Your task to perform on an android device: open app "Cash App" (install if not already installed) Image 0: 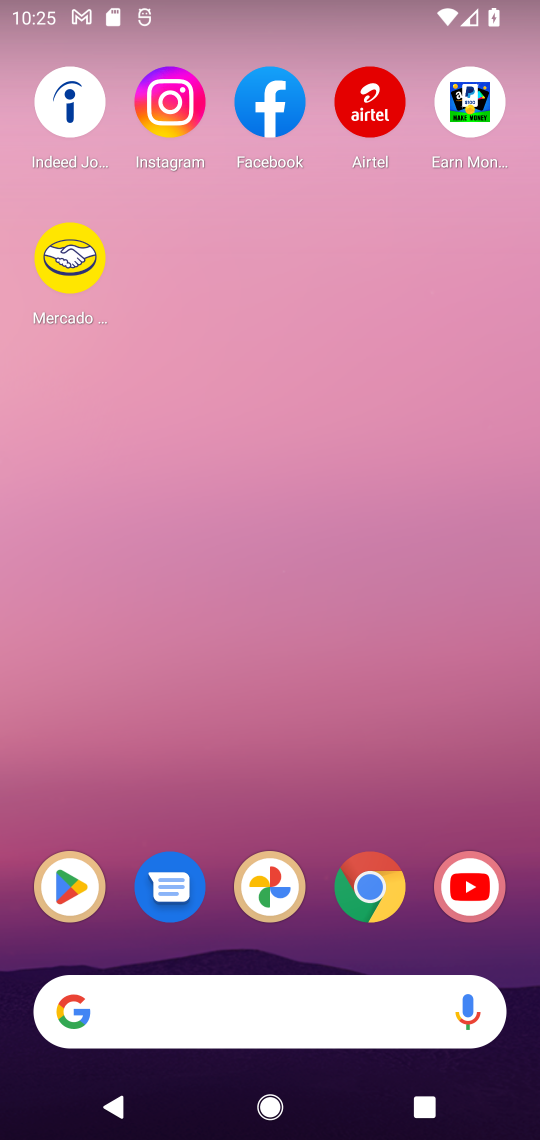
Step 0: drag from (322, 954) to (233, 149)
Your task to perform on an android device: open app "Cash App" (install if not already installed) Image 1: 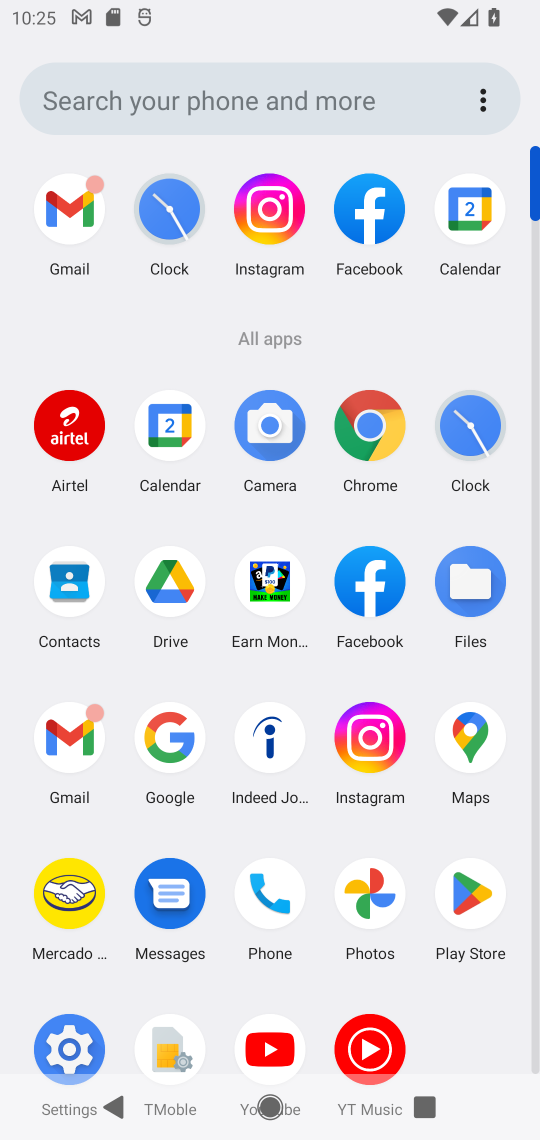
Step 1: click (477, 887)
Your task to perform on an android device: open app "Cash App" (install if not already installed) Image 2: 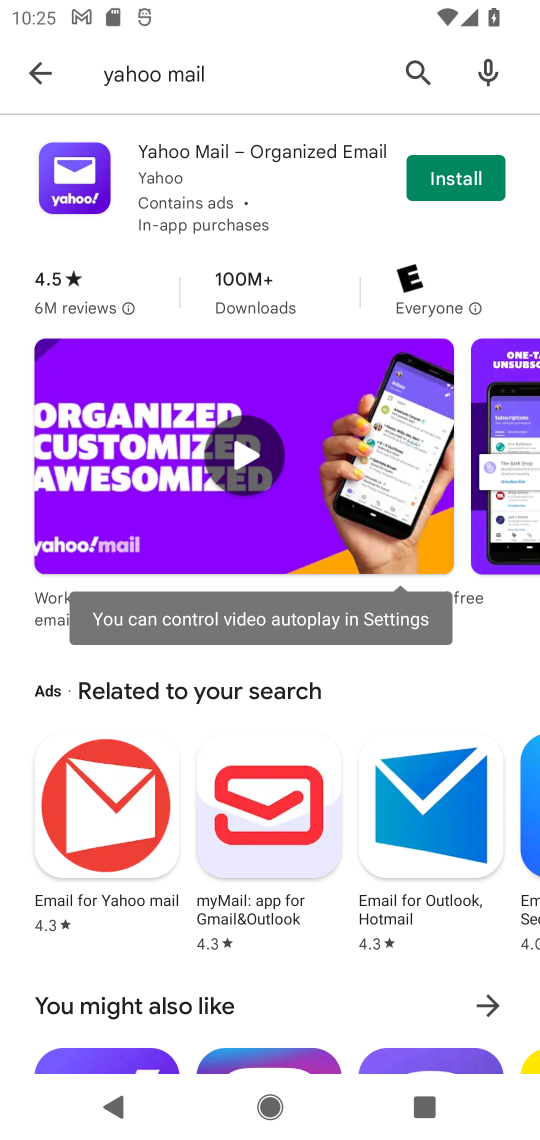
Step 2: click (56, 70)
Your task to perform on an android device: open app "Cash App" (install if not already installed) Image 3: 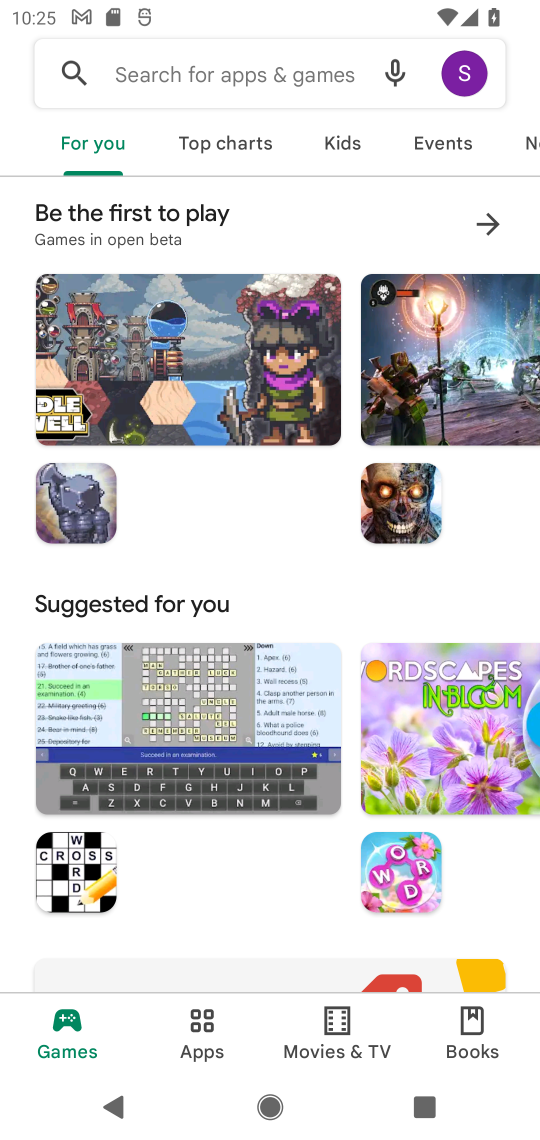
Step 3: type "Cash App"
Your task to perform on an android device: open app "Cash App" (install if not already installed) Image 4: 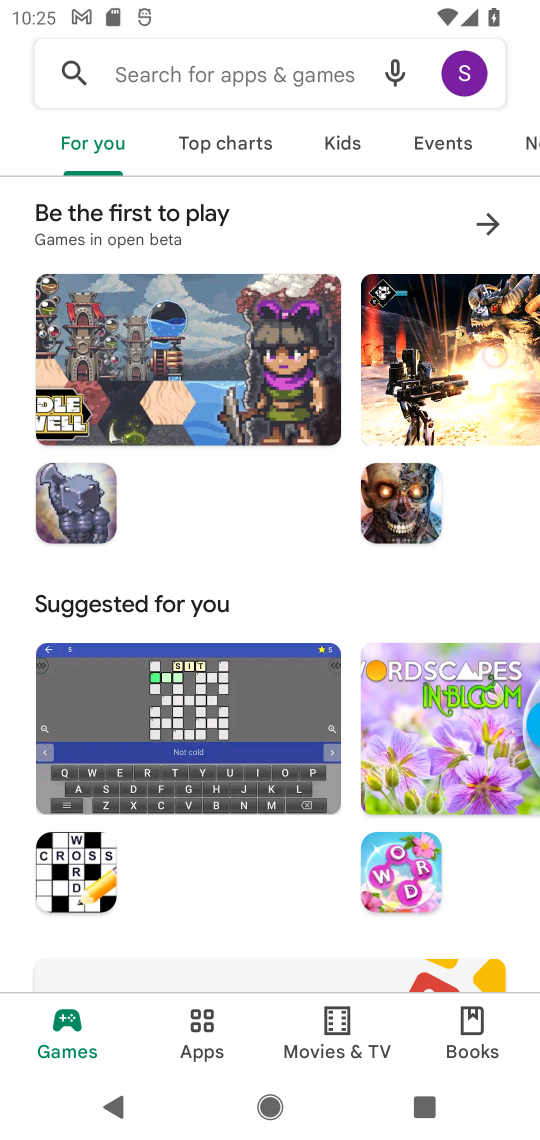
Step 4: type ""
Your task to perform on an android device: open app "Cash App" (install if not already installed) Image 5: 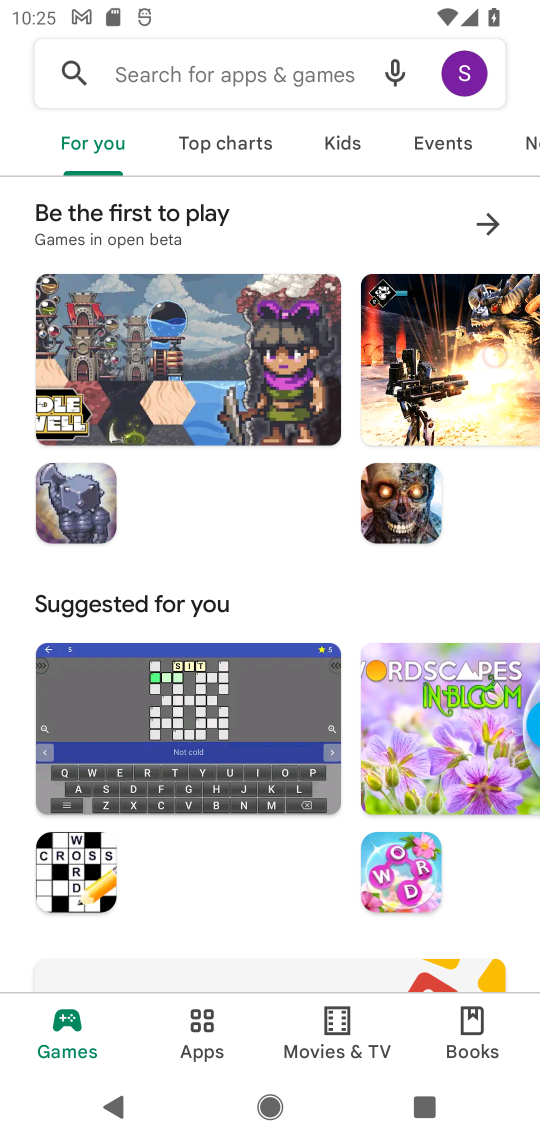
Step 5: click (135, 75)
Your task to perform on an android device: open app "Cash App" (install if not already installed) Image 6: 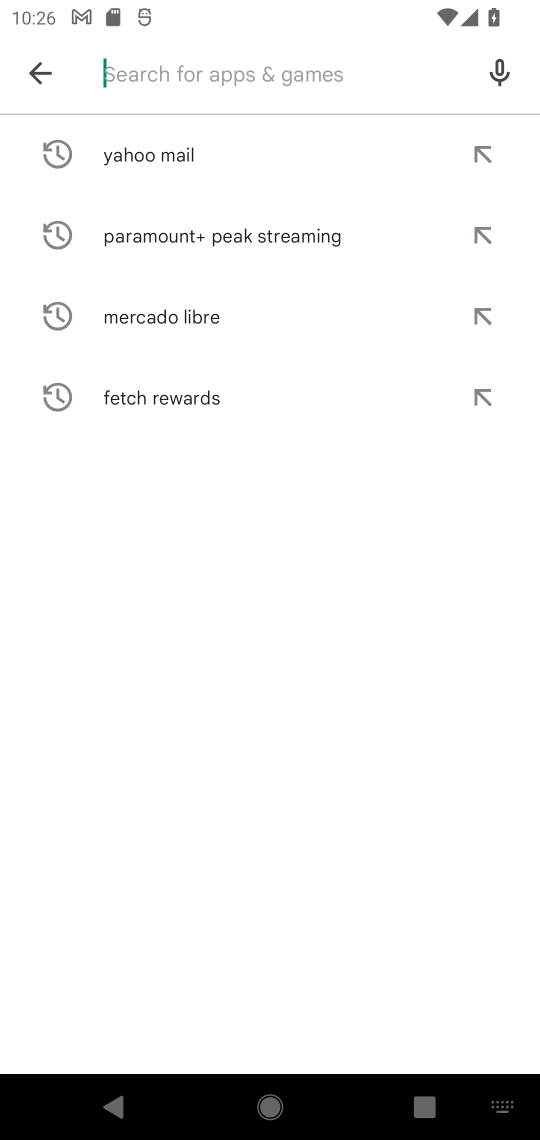
Step 6: type "Cash App"
Your task to perform on an android device: open app "Cash App" (install if not already installed) Image 7: 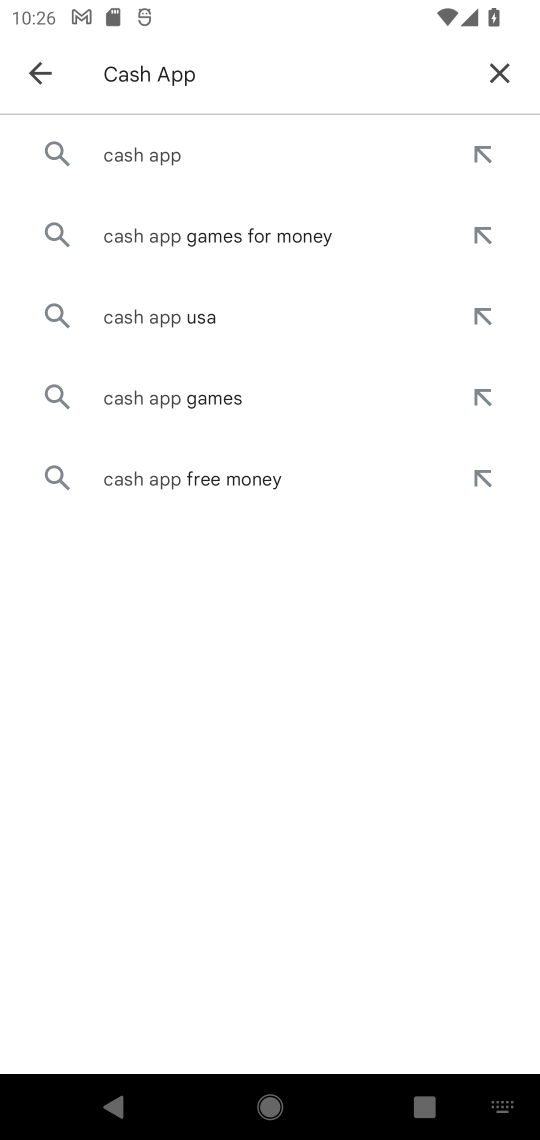
Step 7: click (167, 152)
Your task to perform on an android device: open app "Cash App" (install if not already installed) Image 8: 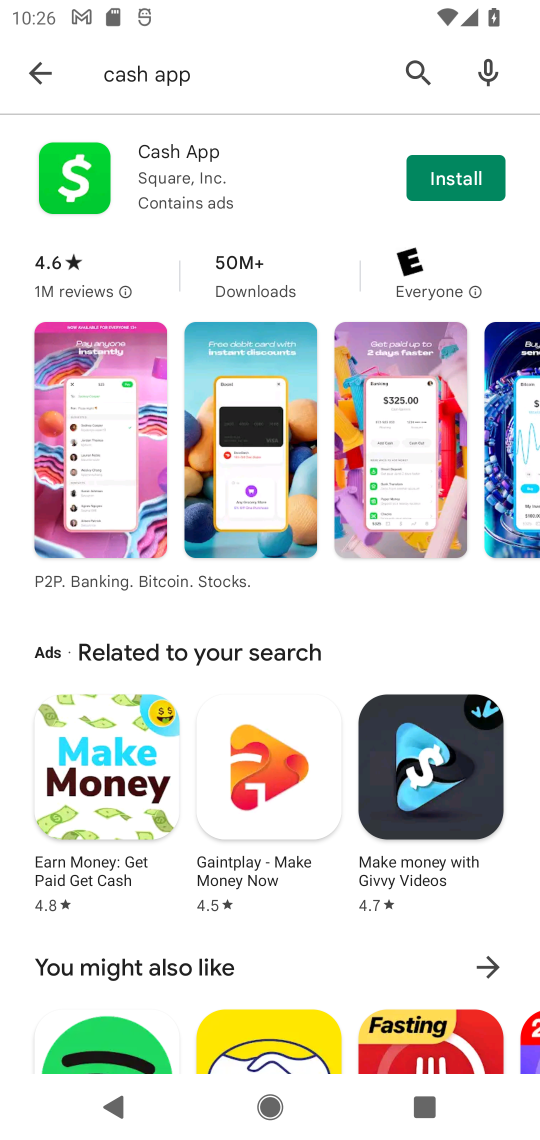
Step 8: click (441, 183)
Your task to perform on an android device: open app "Cash App" (install if not already installed) Image 9: 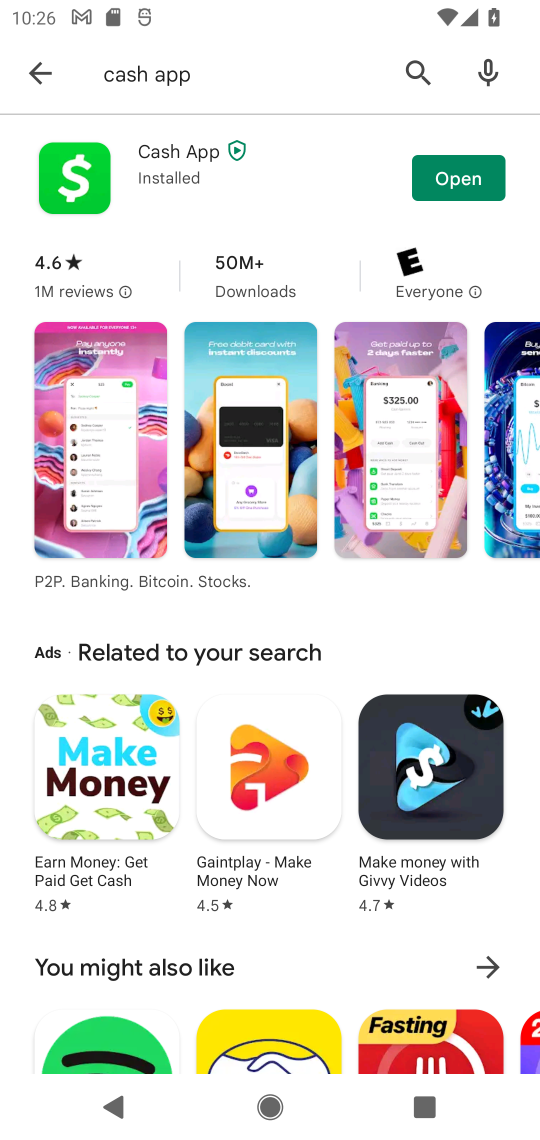
Step 9: click (453, 197)
Your task to perform on an android device: open app "Cash App" (install if not already installed) Image 10: 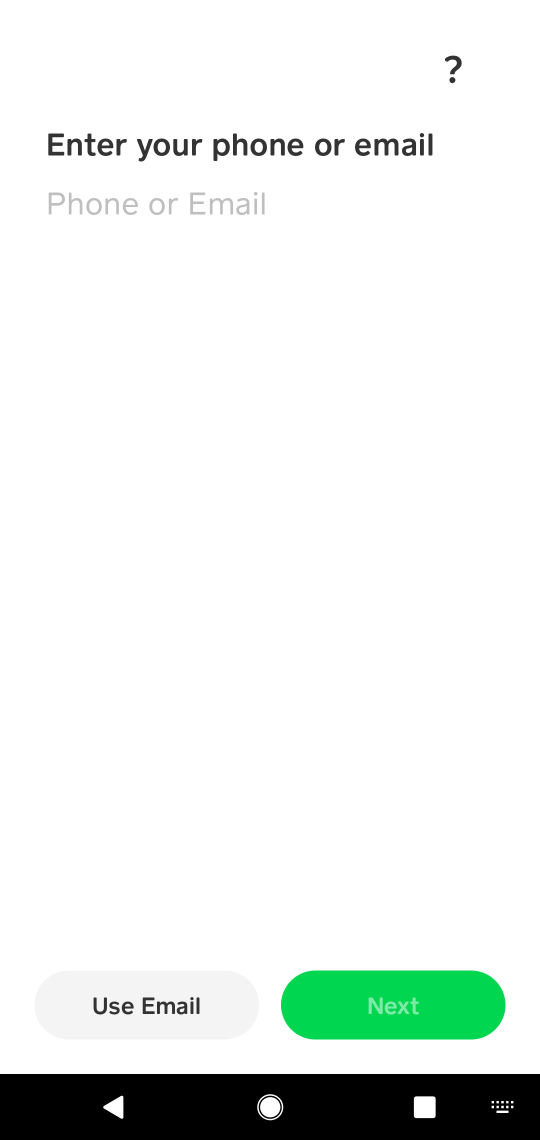
Step 10: task complete